Your task to perform on an android device: change the clock display to show seconds Image 0: 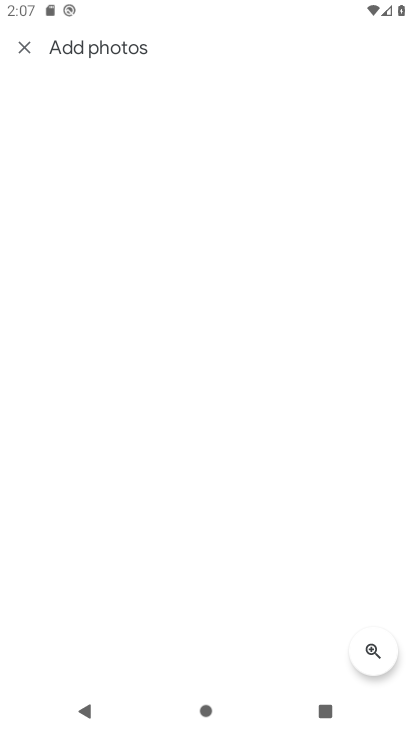
Step 0: press home button
Your task to perform on an android device: change the clock display to show seconds Image 1: 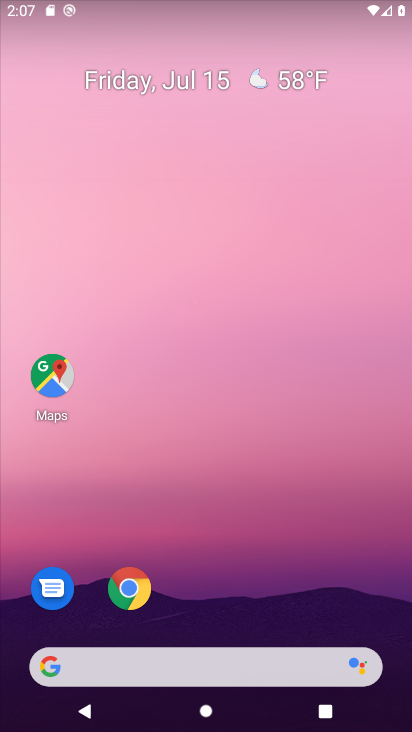
Step 1: drag from (333, 575) to (297, 75)
Your task to perform on an android device: change the clock display to show seconds Image 2: 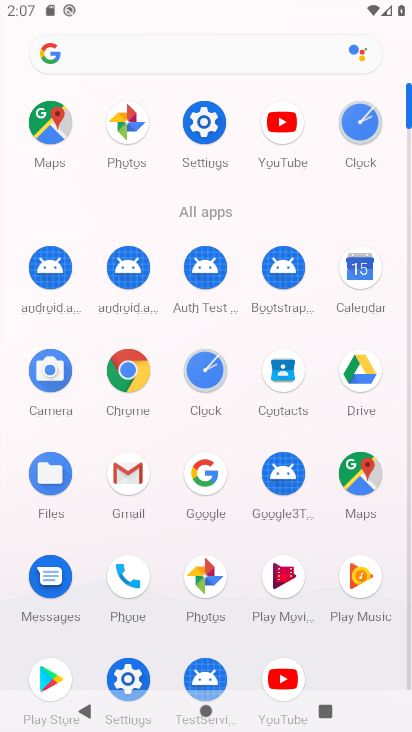
Step 2: click (200, 374)
Your task to perform on an android device: change the clock display to show seconds Image 3: 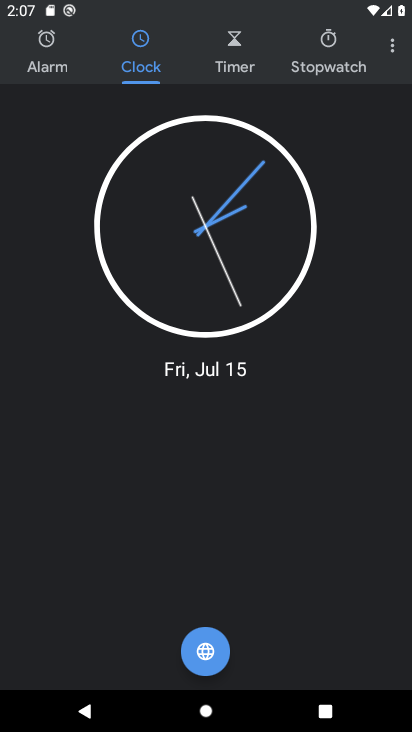
Step 3: click (395, 40)
Your task to perform on an android device: change the clock display to show seconds Image 4: 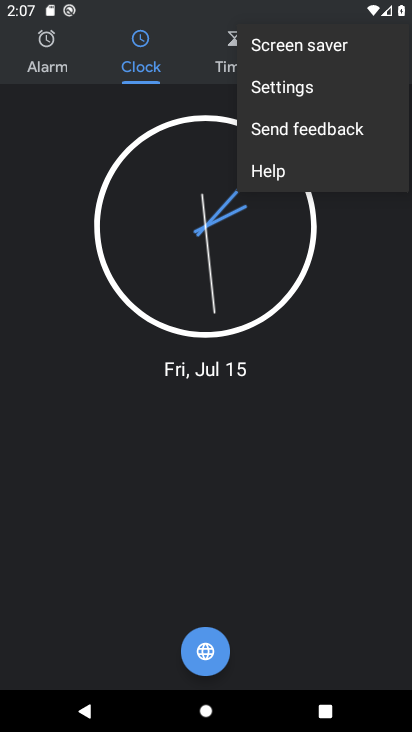
Step 4: click (319, 81)
Your task to perform on an android device: change the clock display to show seconds Image 5: 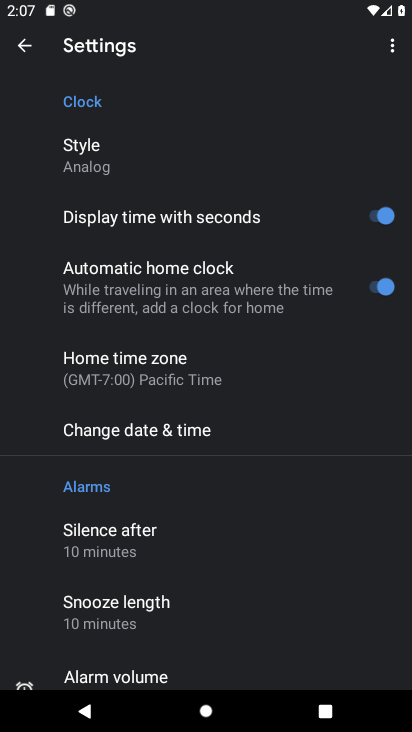
Step 5: task complete